Your task to perform on an android device: turn on data saver in the chrome app Image 0: 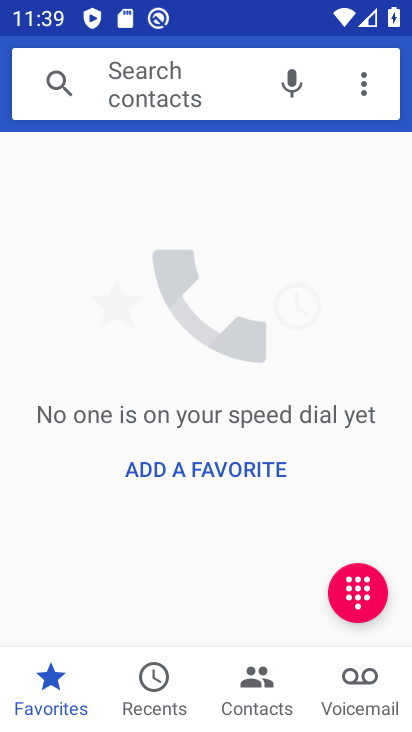
Step 0: press home button
Your task to perform on an android device: turn on data saver in the chrome app Image 1: 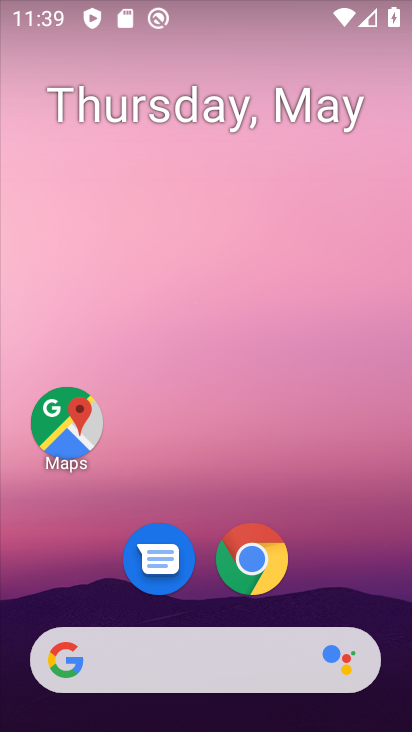
Step 1: drag from (332, 326) to (291, 17)
Your task to perform on an android device: turn on data saver in the chrome app Image 2: 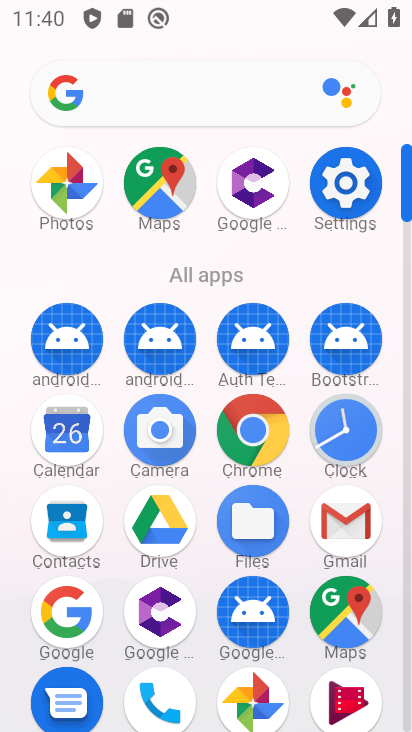
Step 2: click (261, 427)
Your task to perform on an android device: turn on data saver in the chrome app Image 3: 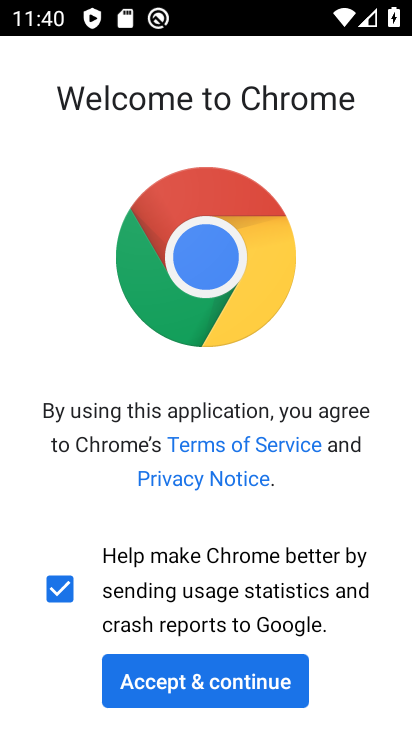
Step 3: click (216, 679)
Your task to perform on an android device: turn on data saver in the chrome app Image 4: 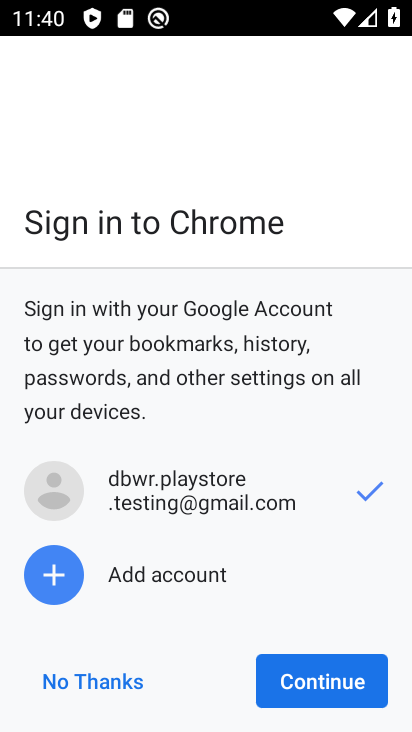
Step 4: click (277, 697)
Your task to perform on an android device: turn on data saver in the chrome app Image 5: 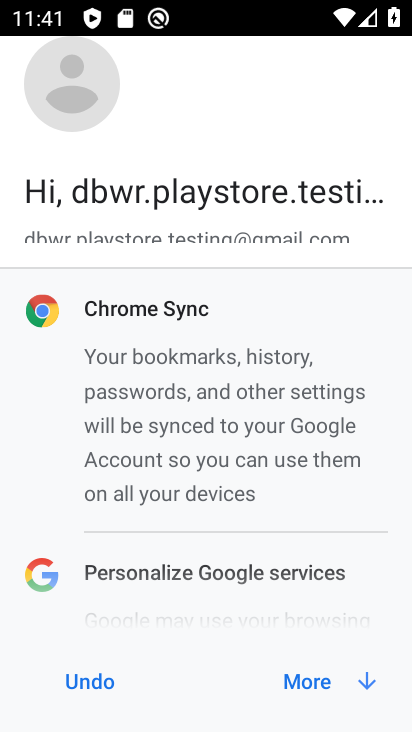
Step 5: click (298, 707)
Your task to perform on an android device: turn on data saver in the chrome app Image 6: 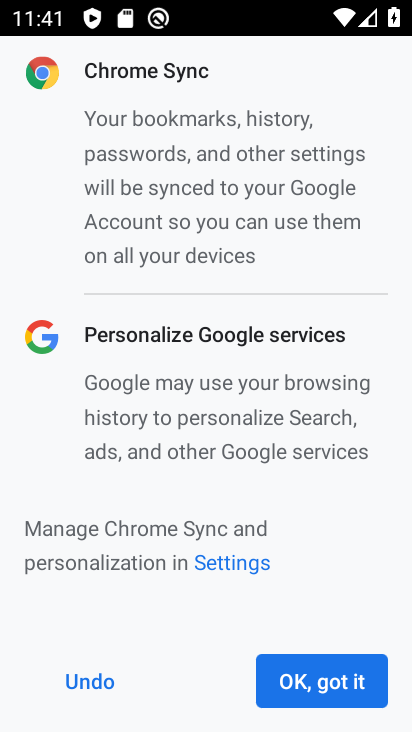
Step 6: click (328, 690)
Your task to perform on an android device: turn on data saver in the chrome app Image 7: 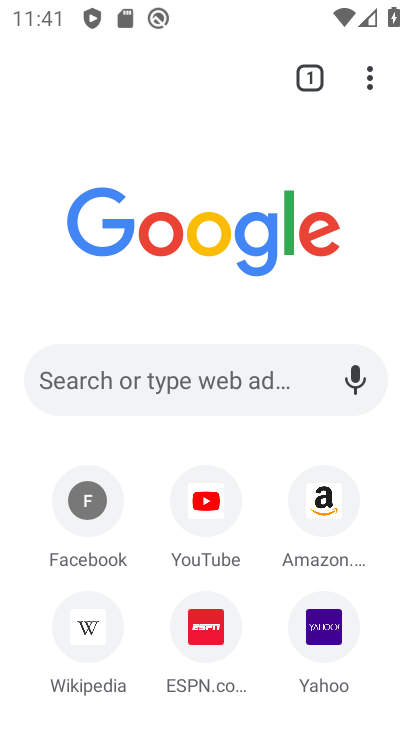
Step 7: click (365, 81)
Your task to perform on an android device: turn on data saver in the chrome app Image 8: 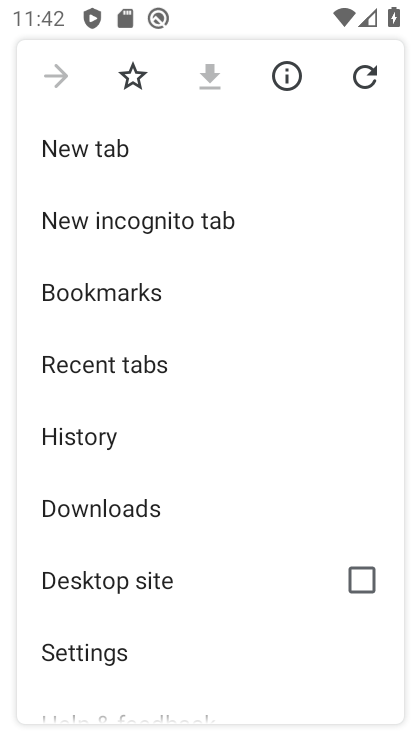
Step 8: drag from (221, 543) to (335, 33)
Your task to perform on an android device: turn on data saver in the chrome app Image 9: 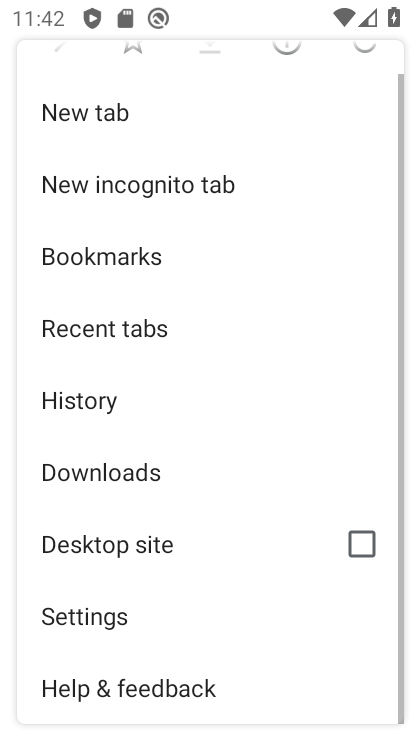
Step 9: click (176, 612)
Your task to perform on an android device: turn on data saver in the chrome app Image 10: 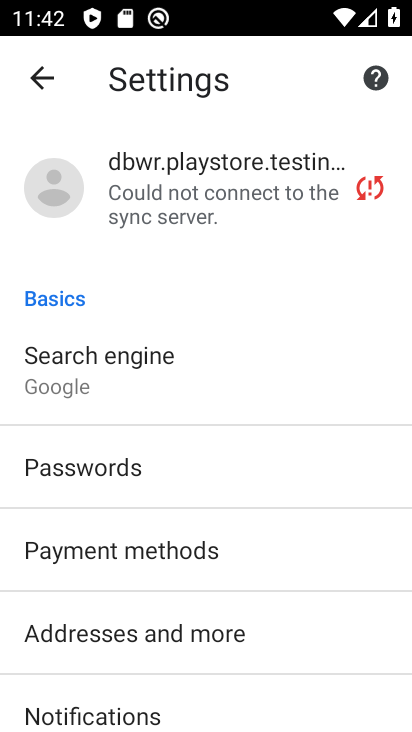
Step 10: drag from (186, 617) to (282, 261)
Your task to perform on an android device: turn on data saver in the chrome app Image 11: 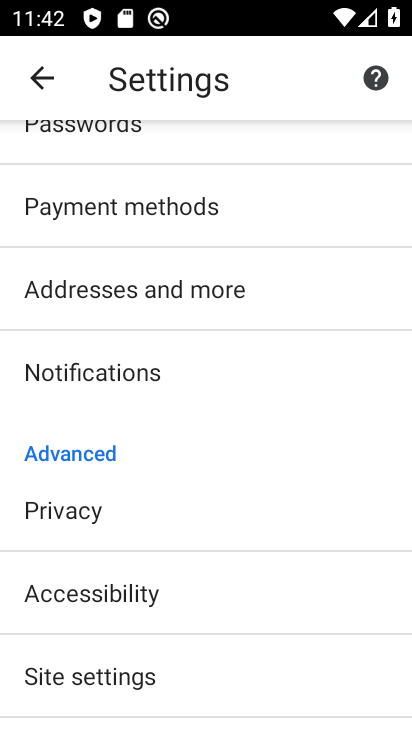
Step 11: click (218, 186)
Your task to perform on an android device: turn on data saver in the chrome app Image 12: 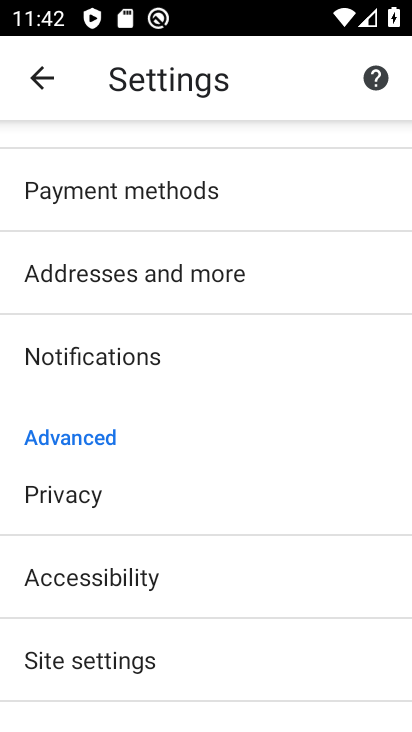
Step 12: drag from (141, 596) to (202, 186)
Your task to perform on an android device: turn on data saver in the chrome app Image 13: 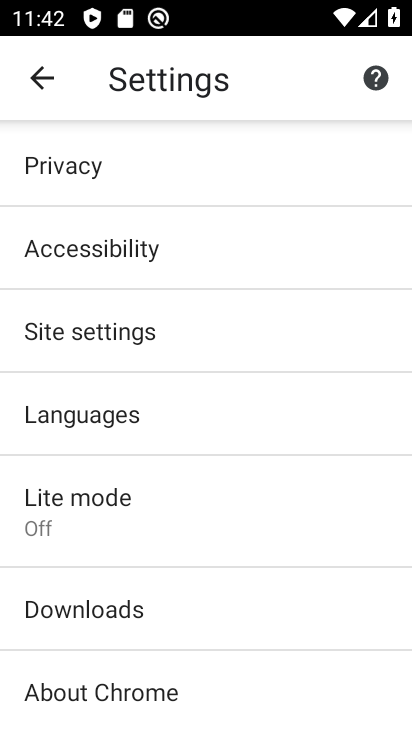
Step 13: drag from (167, 581) to (215, 316)
Your task to perform on an android device: turn on data saver in the chrome app Image 14: 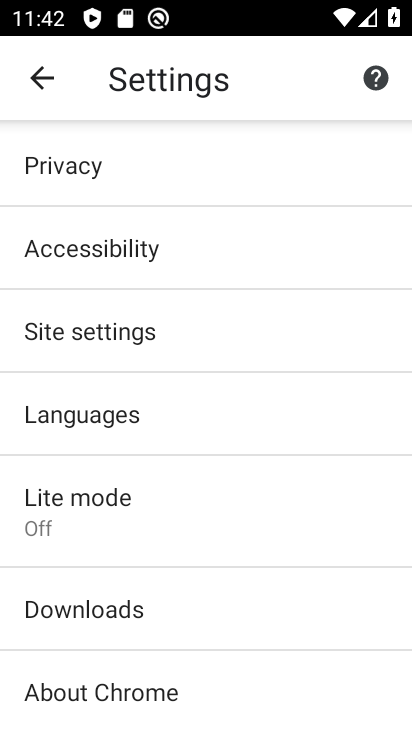
Step 14: click (165, 527)
Your task to perform on an android device: turn on data saver in the chrome app Image 15: 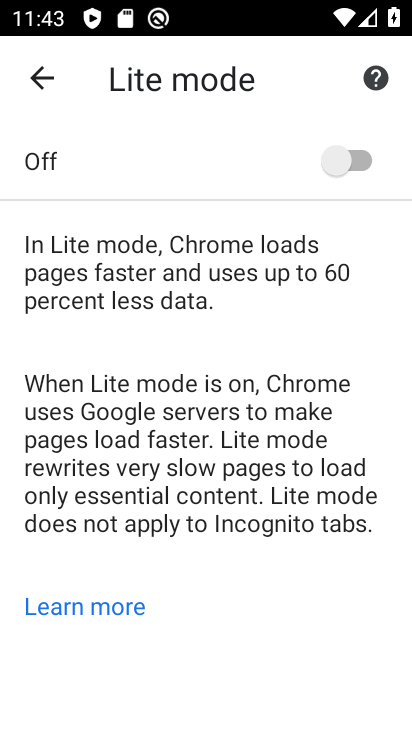
Step 15: click (365, 165)
Your task to perform on an android device: turn on data saver in the chrome app Image 16: 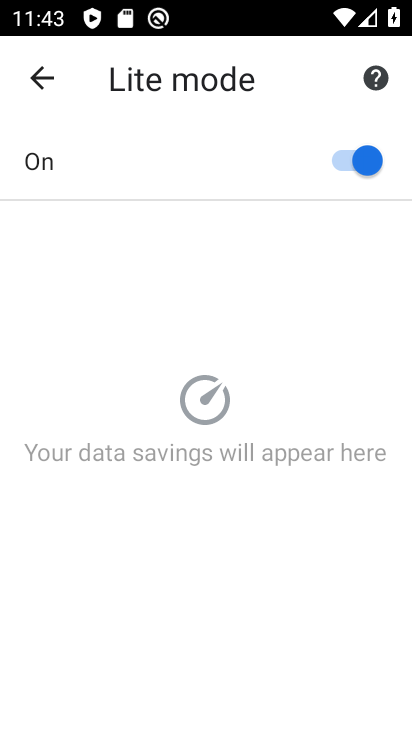
Step 16: task complete